Your task to perform on an android device: allow notifications from all sites in the chrome app Image 0: 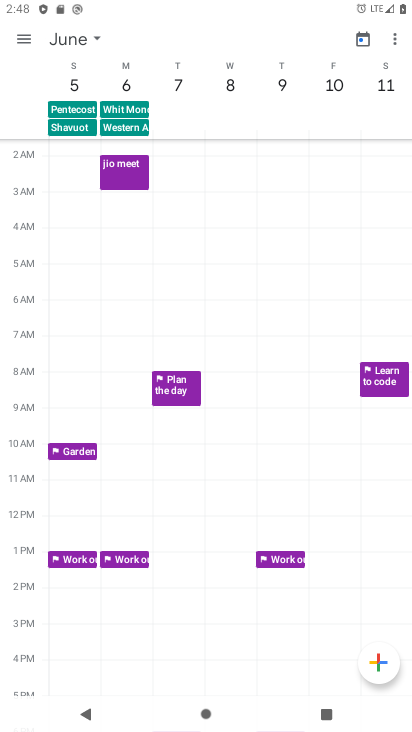
Step 0: press home button
Your task to perform on an android device: allow notifications from all sites in the chrome app Image 1: 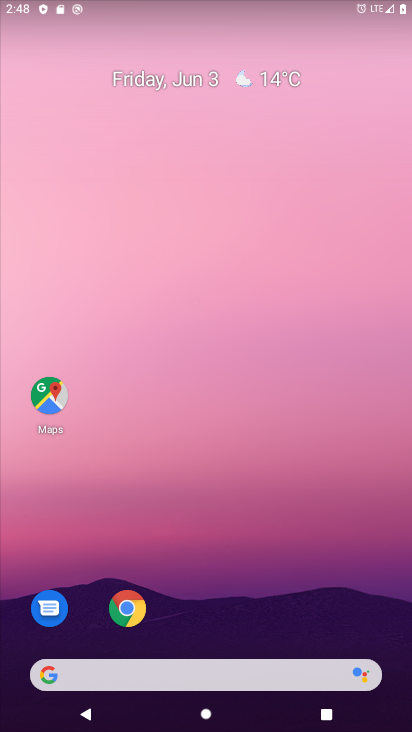
Step 1: click (133, 609)
Your task to perform on an android device: allow notifications from all sites in the chrome app Image 2: 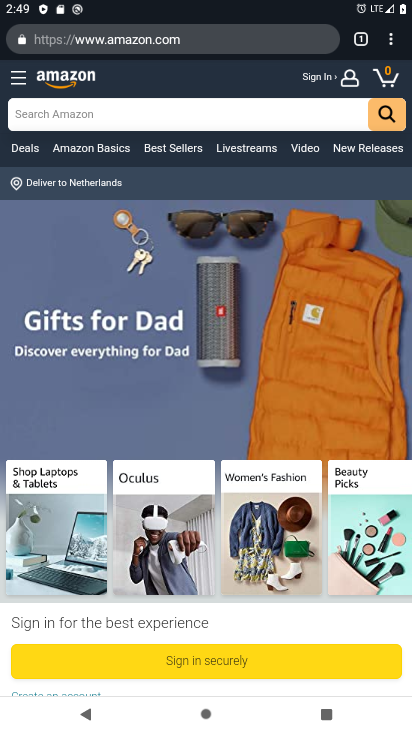
Step 2: drag from (392, 43) to (282, 509)
Your task to perform on an android device: allow notifications from all sites in the chrome app Image 3: 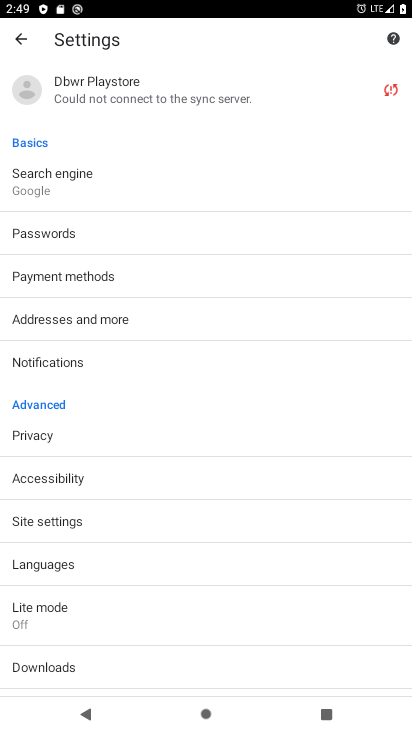
Step 3: click (89, 517)
Your task to perform on an android device: allow notifications from all sites in the chrome app Image 4: 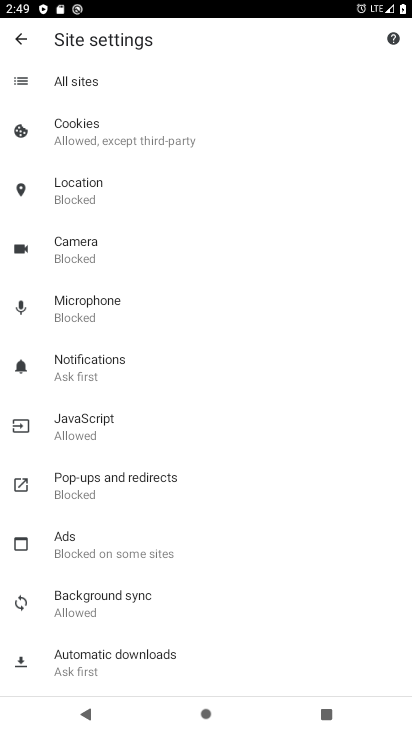
Step 4: click (135, 357)
Your task to perform on an android device: allow notifications from all sites in the chrome app Image 5: 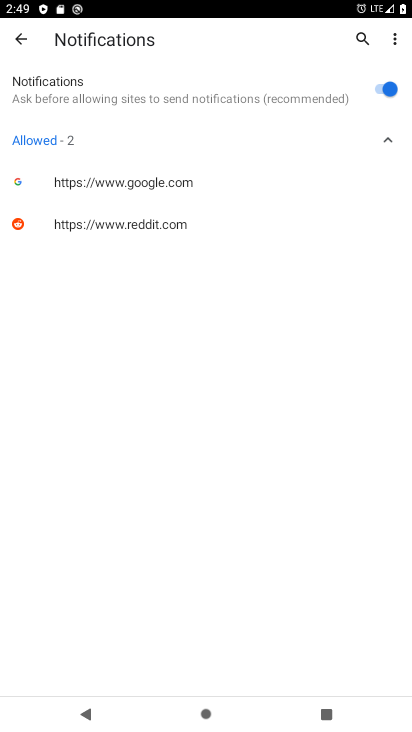
Step 5: task complete